Your task to perform on an android device: Open wifi settings Image 0: 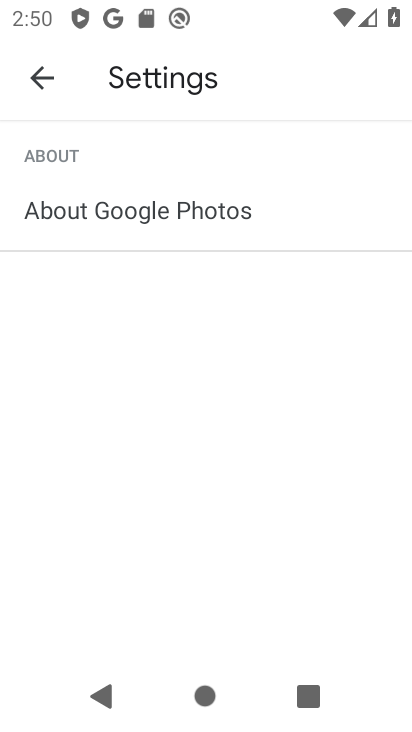
Step 0: press back button
Your task to perform on an android device: Open wifi settings Image 1: 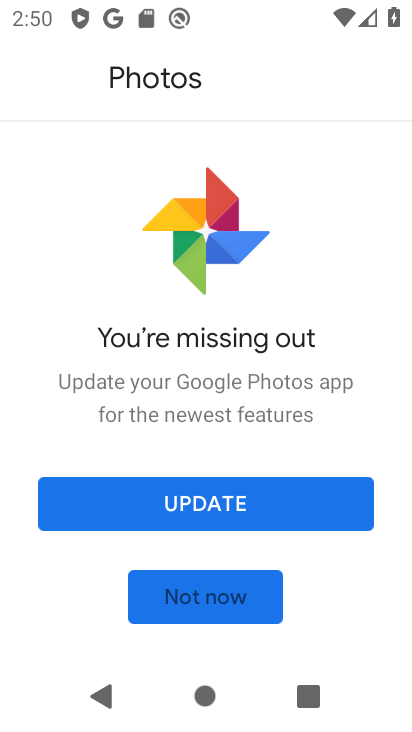
Step 1: press back button
Your task to perform on an android device: Open wifi settings Image 2: 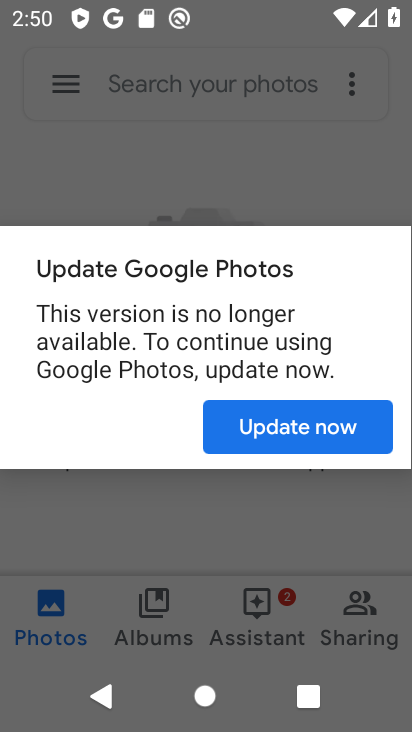
Step 2: press back button
Your task to perform on an android device: Open wifi settings Image 3: 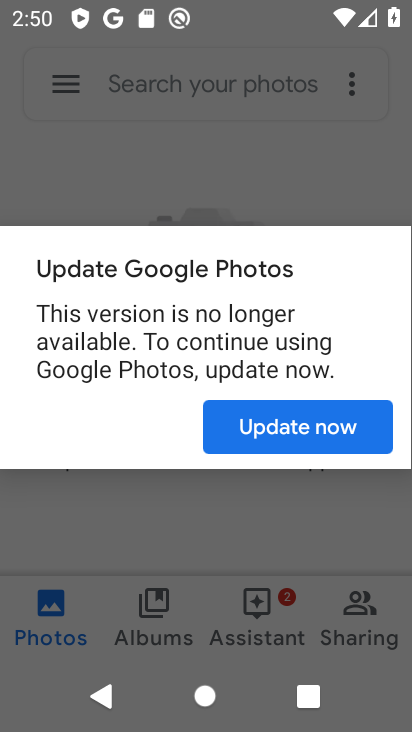
Step 3: press home button
Your task to perform on an android device: Open wifi settings Image 4: 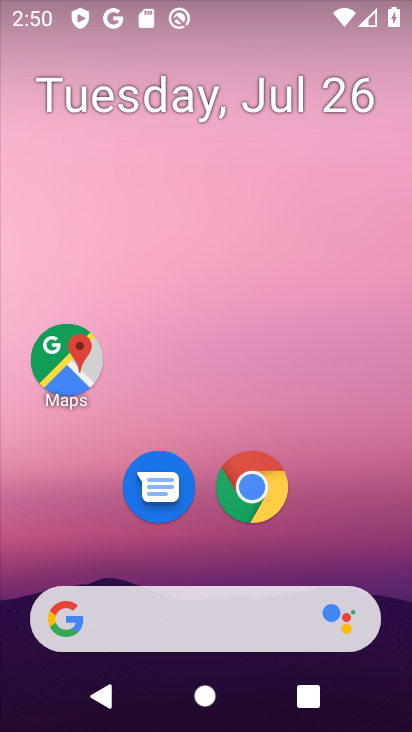
Step 4: drag from (185, 18) to (116, 588)
Your task to perform on an android device: Open wifi settings Image 5: 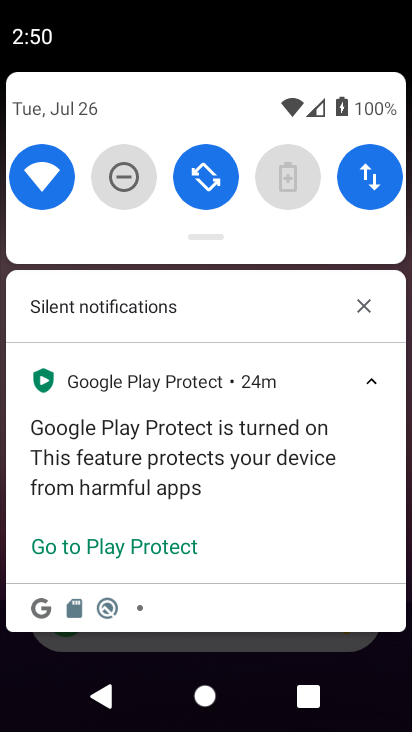
Step 5: click (47, 164)
Your task to perform on an android device: Open wifi settings Image 6: 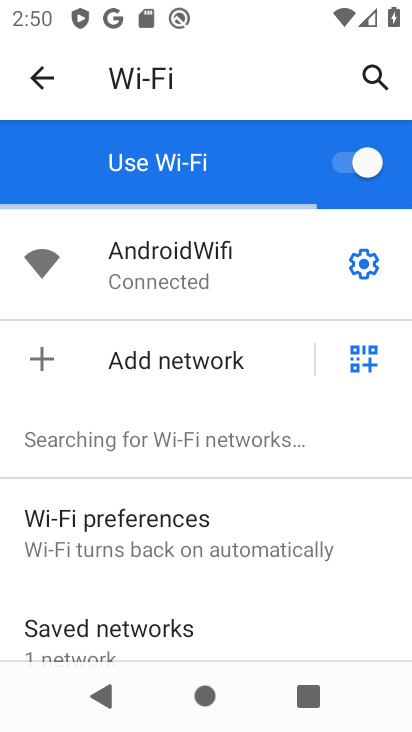
Step 6: task complete